Your task to perform on an android device: Go to wifi settings Image 0: 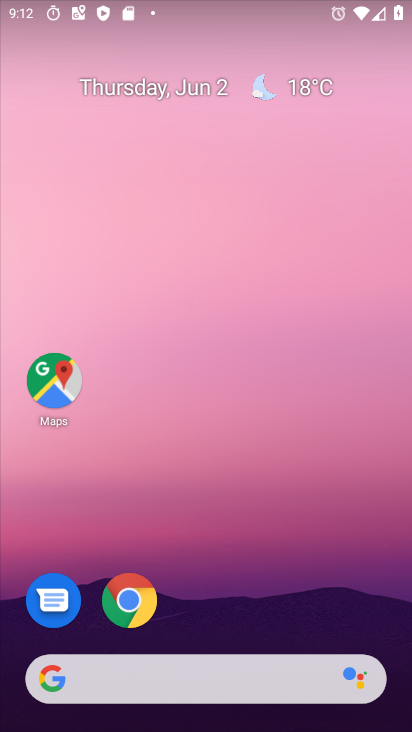
Step 0: drag from (373, 623) to (378, 198)
Your task to perform on an android device: Go to wifi settings Image 1: 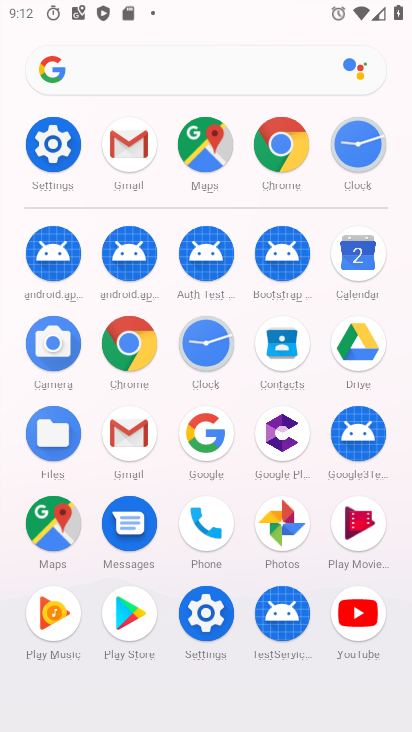
Step 1: click (215, 622)
Your task to perform on an android device: Go to wifi settings Image 2: 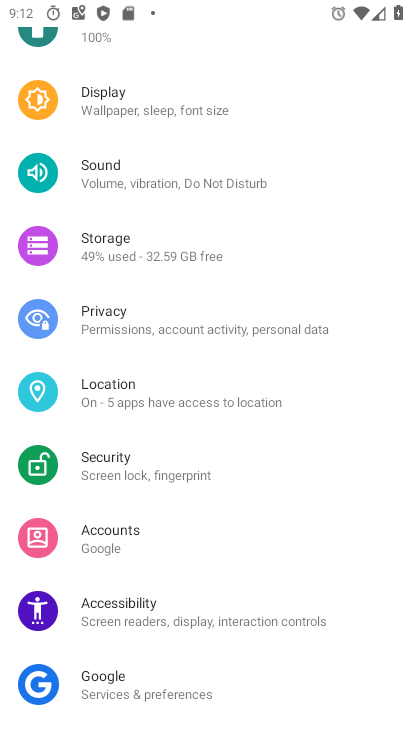
Step 2: drag from (321, 370) to (323, 471)
Your task to perform on an android device: Go to wifi settings Image 3: 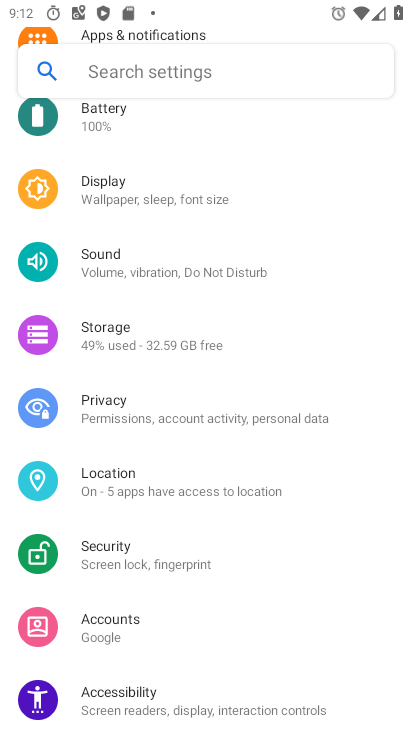
Step 3: drag from (336, 341) to (344, 468)
Your task to perform on an android device: Go to wifi settings Image 4: 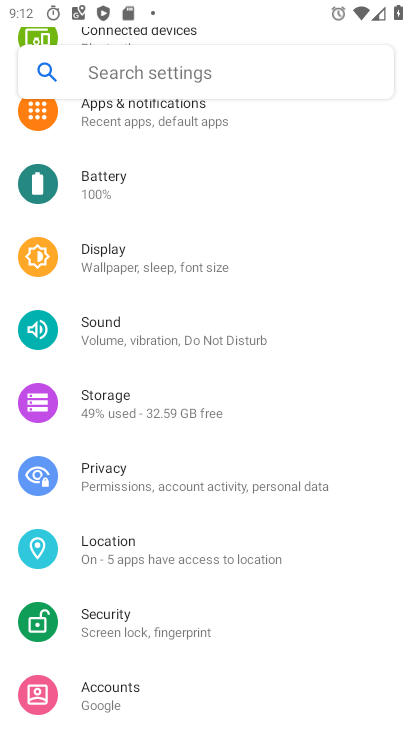
Step 4: drag from (355, 303) to (356, 439)
Your task to perform on an android device: Go to wifi settings Image 5: 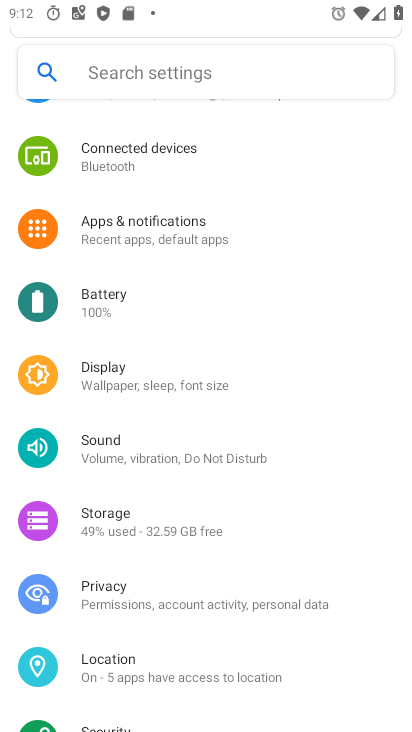
Step 5: drag from (353, 315) to (355, 443)
Your task to perform on an android device: Go to wifi settings Image 6: 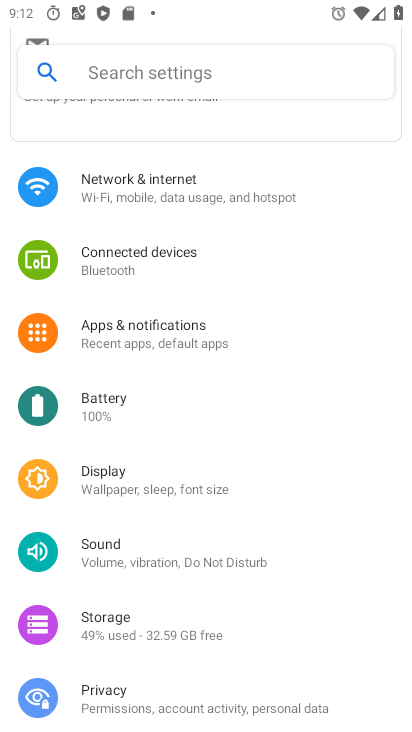
Step 6: drag from (333, 274) to (337, 464)
Your task to perform on an android device: Go to wifi settings Image 7: 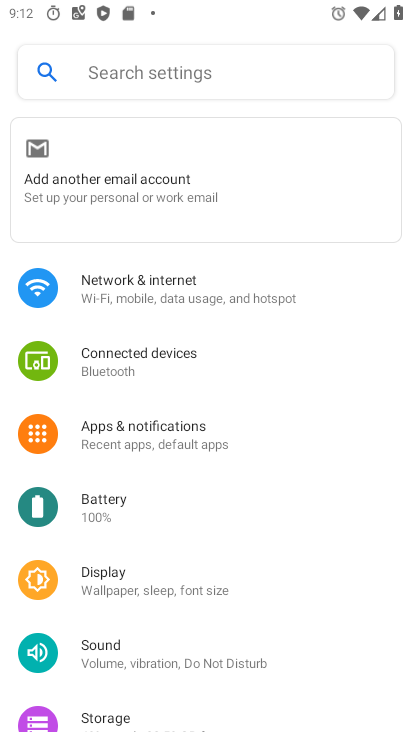
Step 7: drag from (340, 213) to (340, 411)
Your task to perform on an android device: Go to wifi settings Image 8: 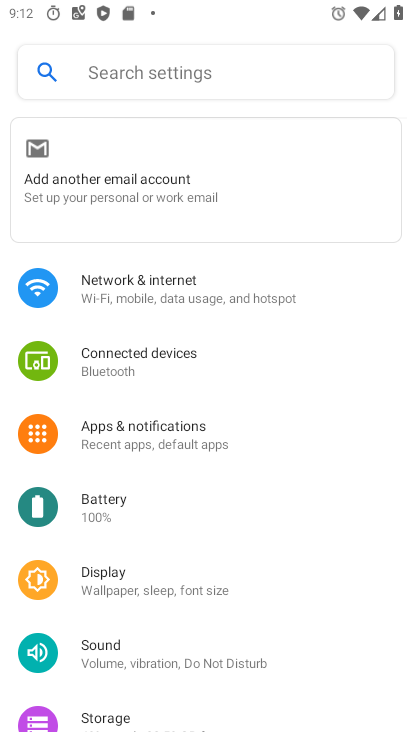
Step 8: click (291, 287)
Your task to perform on an android device: Go to wifi settings Image 9: 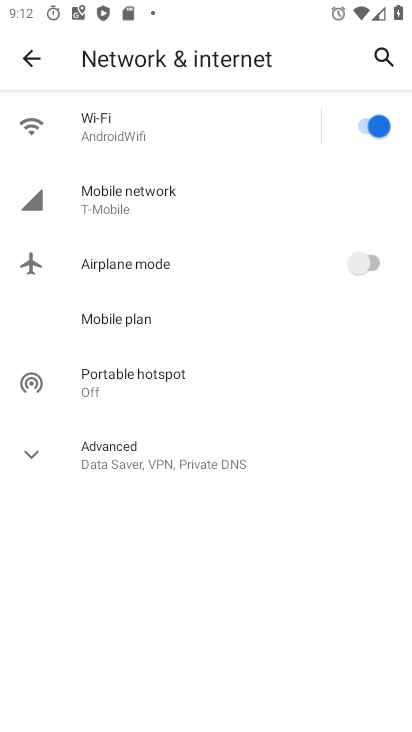
Step 9: click (146, 136)
Your task to perform on an android device: Go to wifi settings Image 10: 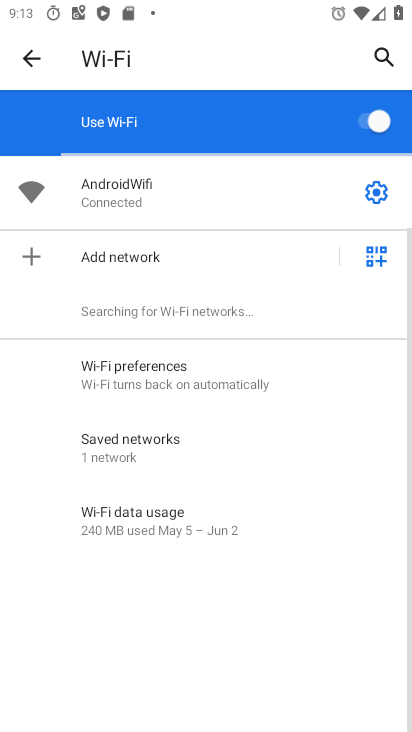
Step 10: task complete